Your task to perform on an android device: Open Wikipedia Image 0: 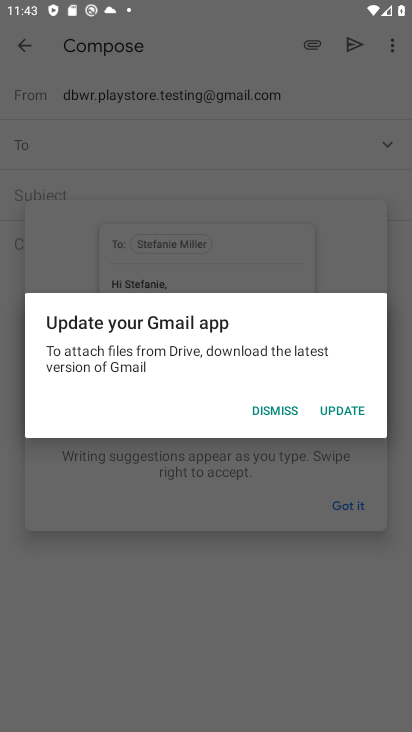
Step 0: press home button
Your task to perform on an android device: Open Wikipedia Image 1: 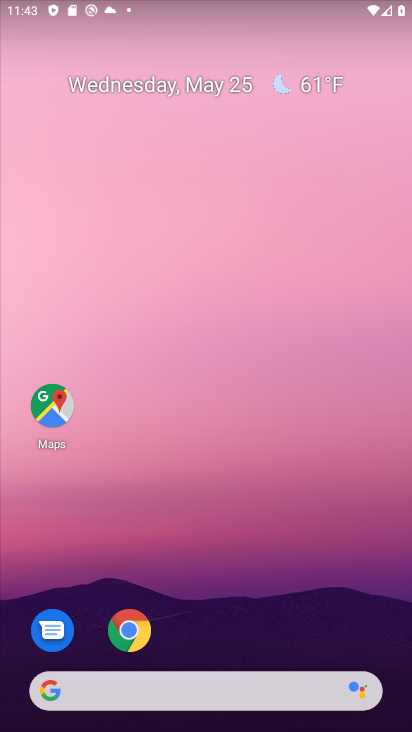
Step 1: click (120, 639)
Your task to perform on an android device: Open Wikipedia Image 2: 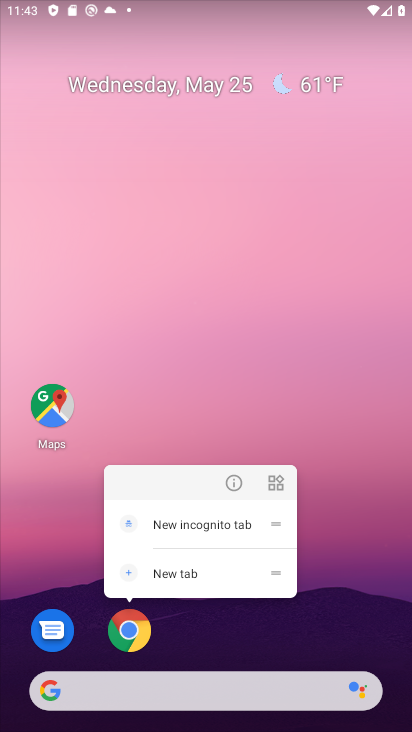
Step 2: click (132, 639)
Your task to perform on an android device: Open Wikipedia Image 3: 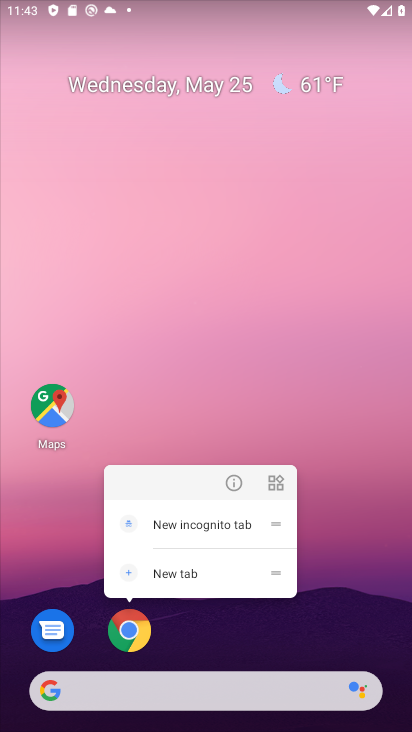
Step 3: click (134, 634)
Your task to perform on an android device: Open Wikipedia Image 4: 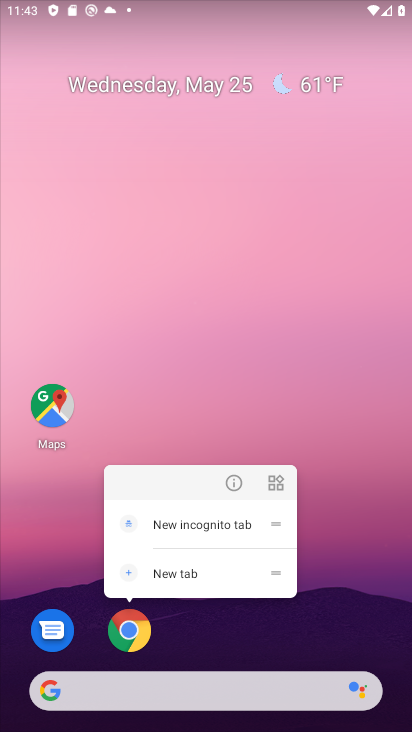
Step 4: click (137, 630)
Your task to perform on an android device: Open Wikipedia Image 5: 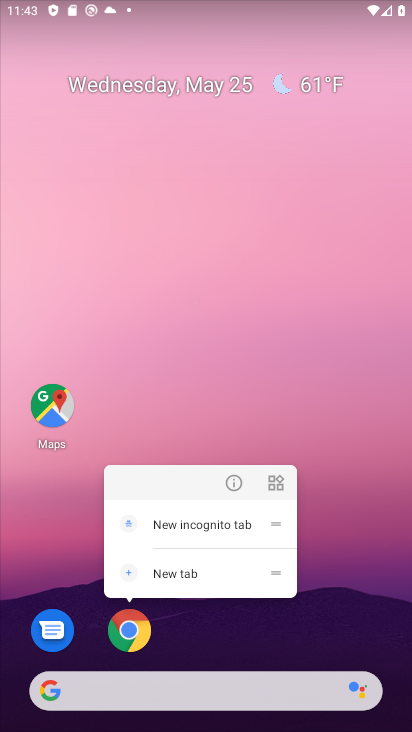
Step 5: click (137, 633)
Your task to perform on an android device: Open Wikipedia Image 6: 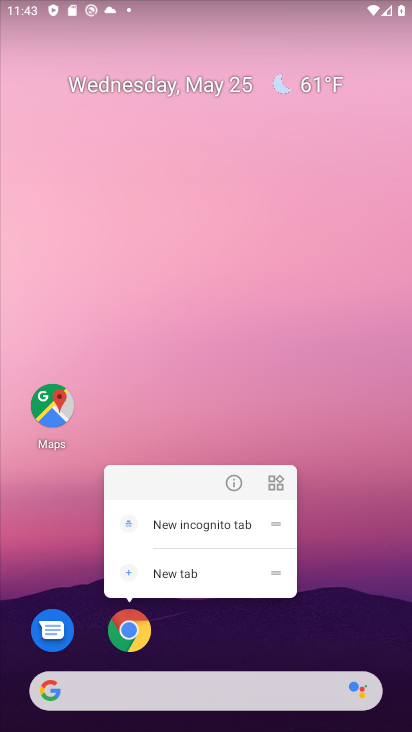
Step 6: click (129, 649)
Your task to perform on an android device: Open Wikipedia Image 7: 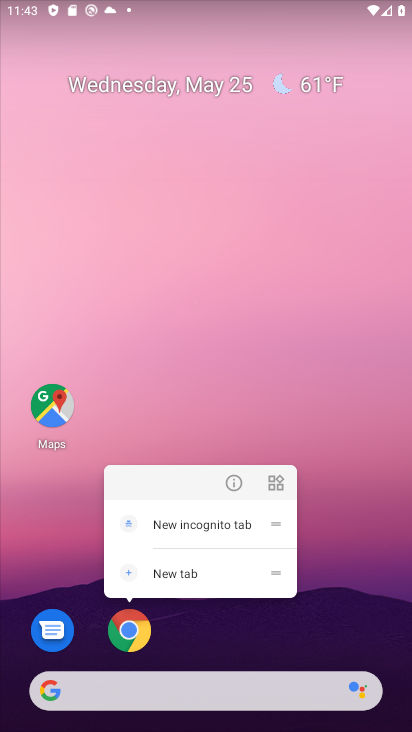
Step 7: click (137, 637)
Your task to perform on an android device: Open Wikipedia Image 8: 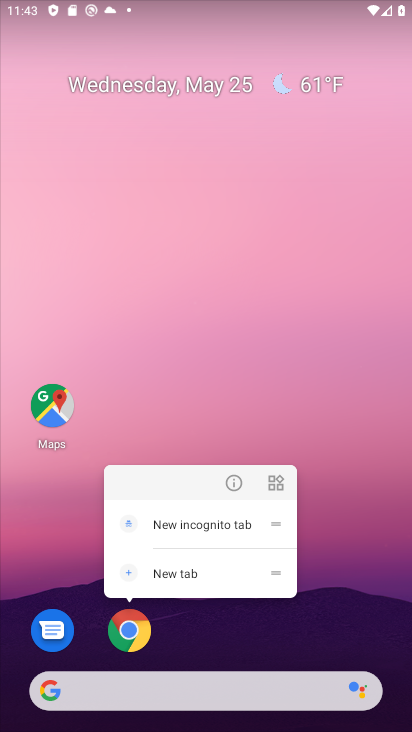
Step 8: click (123, 645)
Your task to perform on an android device: Open Wikipedia Image 9: 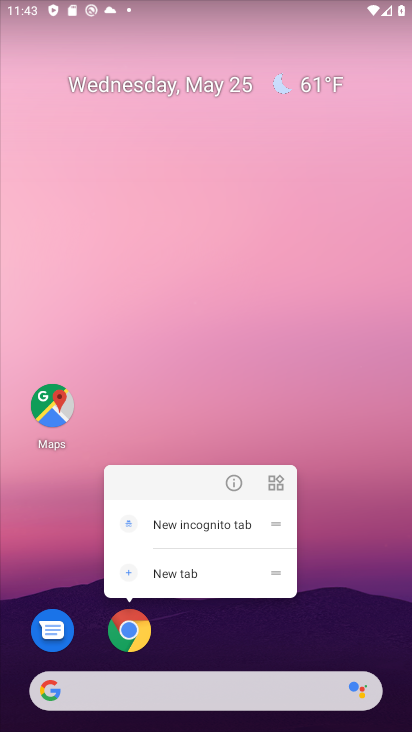
Step 9: click (132, 643)
Your task to perform on an android device: Open Wikipedia Image 10: 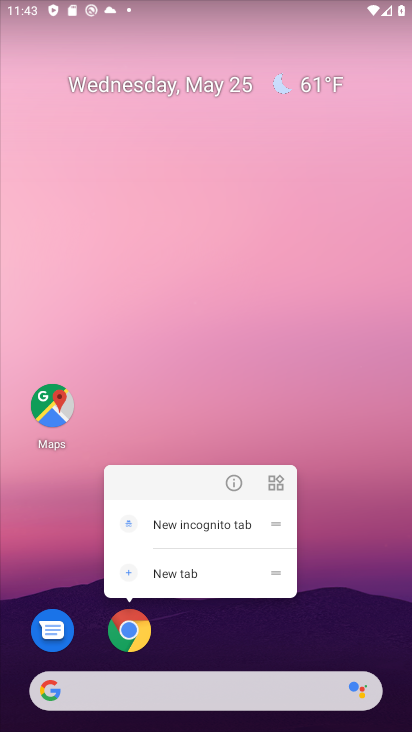
Step 10: click (148, 639)
Your task to perform on an android device: Open Wikipedia Image 11: 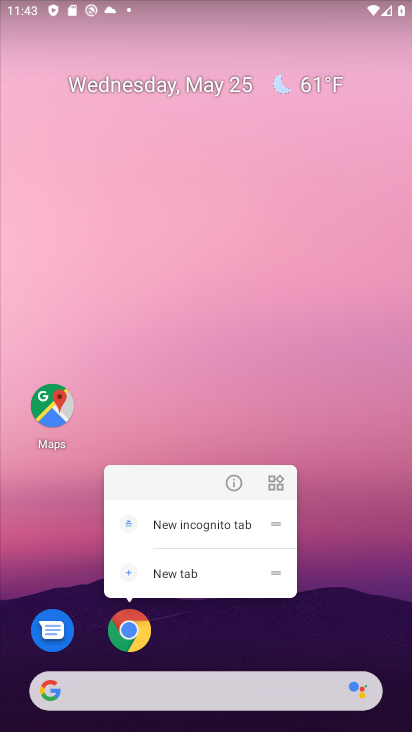
Step 11: click (143, 636)
Your task to perform on an android device: Open Wikipedia Image 12: 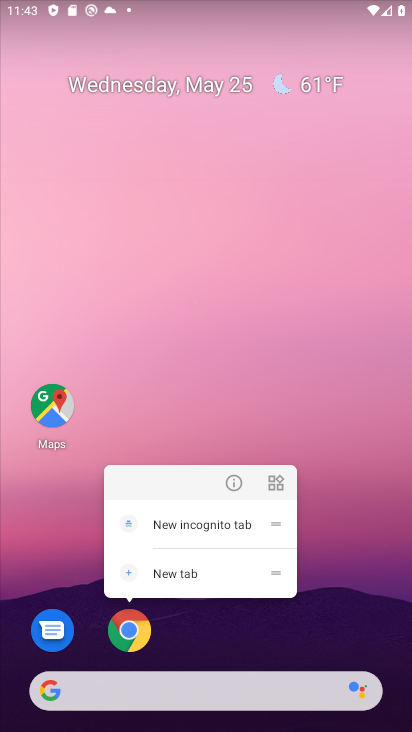
Step 12: click (135, 641)
Your task to perform on an android device: Open Wikipedia Image 13: 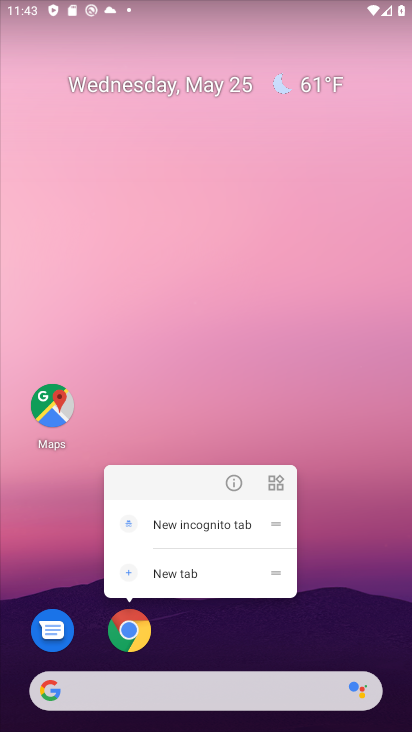
Step 13: click (134, 636)
Your task to perform on an android device: Open Wikipedia Image 14: 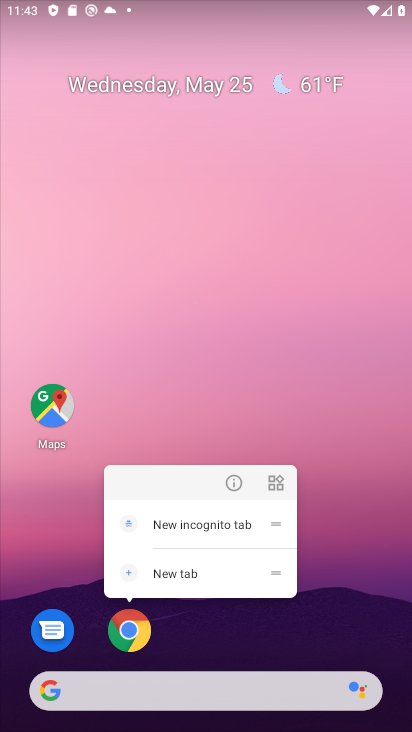
Step 14: click (134, 634)
Your task to perform on an android device: Open Wikipedia Image 15: 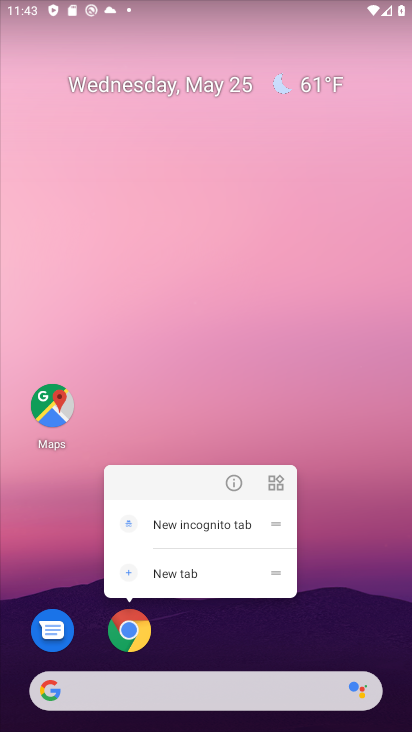
Step 15: click (123, 631)
Your task to perform on an android device: Open Wikipedia Image 16: 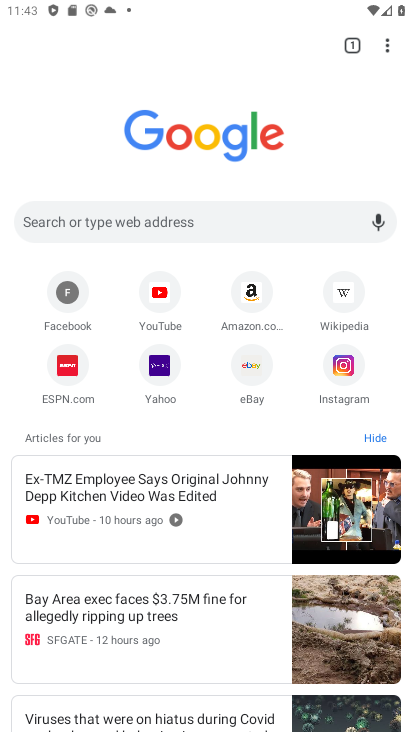
Step 16: click (325, 311)
Your task to perform on an android device: Open Wikipedia Image 17: 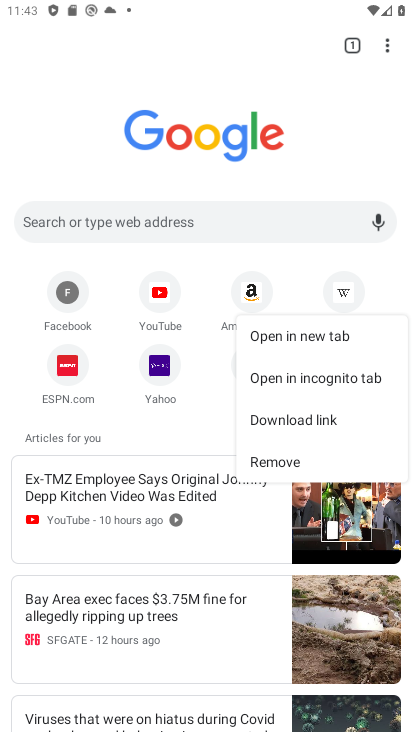
Step 17: click (345, 303)
Your task to perform on an android device: Open Wikipedia Image 18: 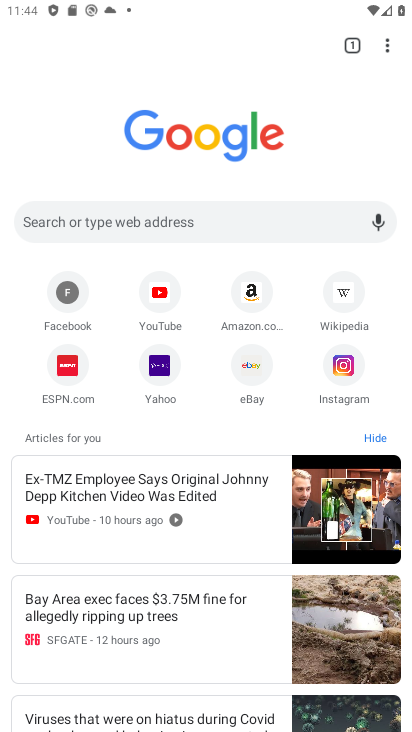
Step 18: click (345, 301)
Your task to perform on an android device: Open Wikipedia Image 19: 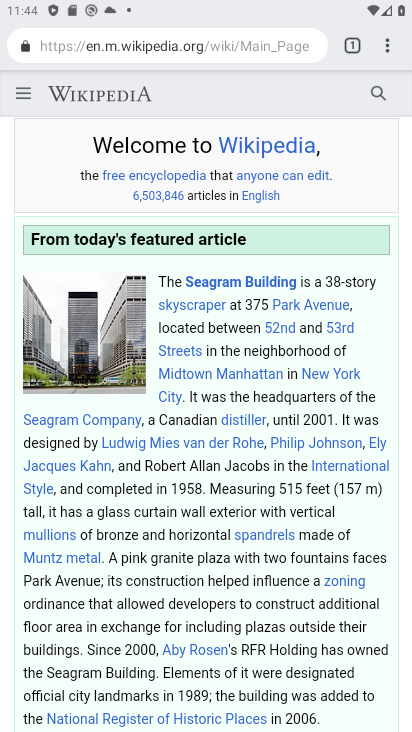
Step 19: task complete